Your task to perform on an android device: turn on location history Image 0: 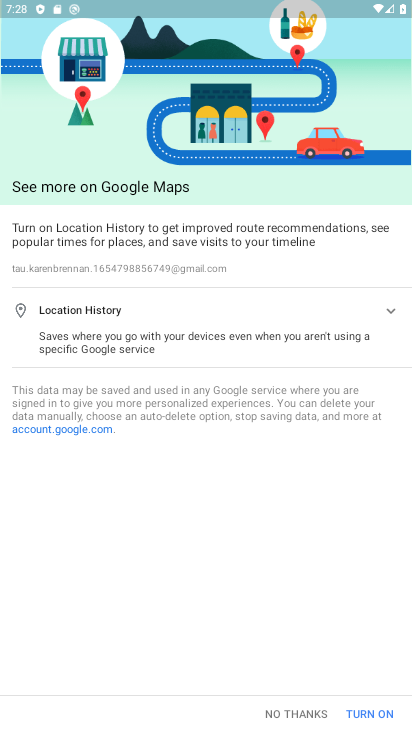
Step 0: press home button
Your task to perform on an android device: turn on location history Image 1: 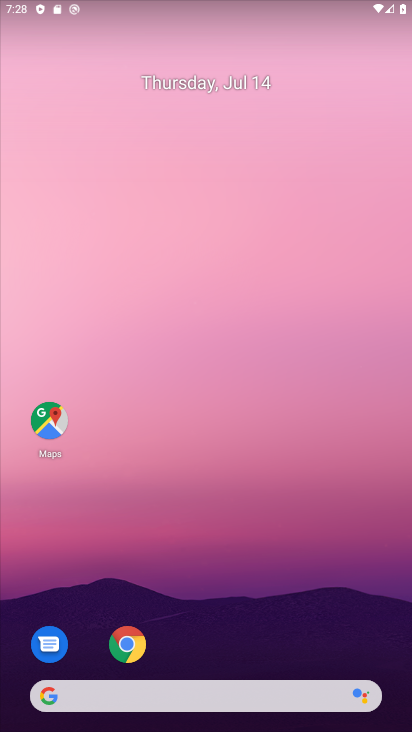
Step 1: click (44, 412)
Your task to perform on an android device: turn on location history Image 2: 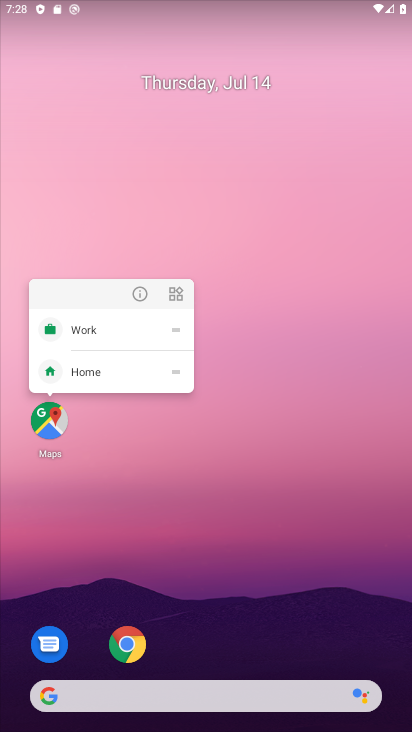
Step 2: click (44, 420)
Your task to perform on an android device: turn on location history Image 3: 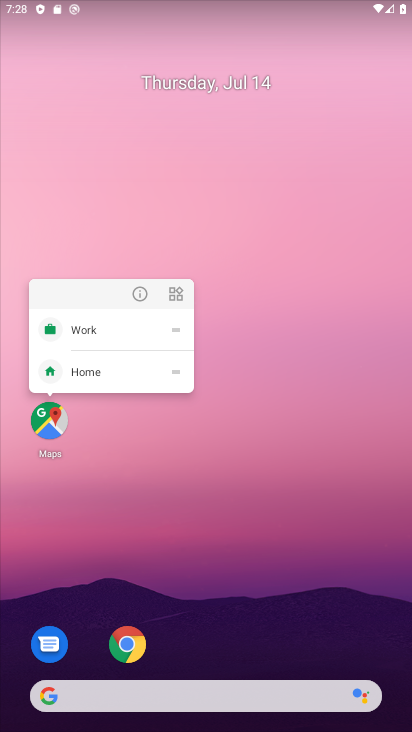
Step 3: click (44, 420)
Your task to perform on an android device: turn on location history Image 4: 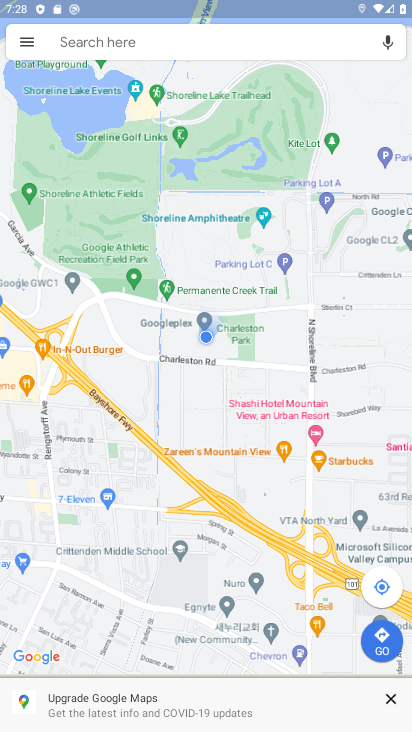
Step 4: click (22, 37)
Your task to perform on an android device: turn on location history Image 5: 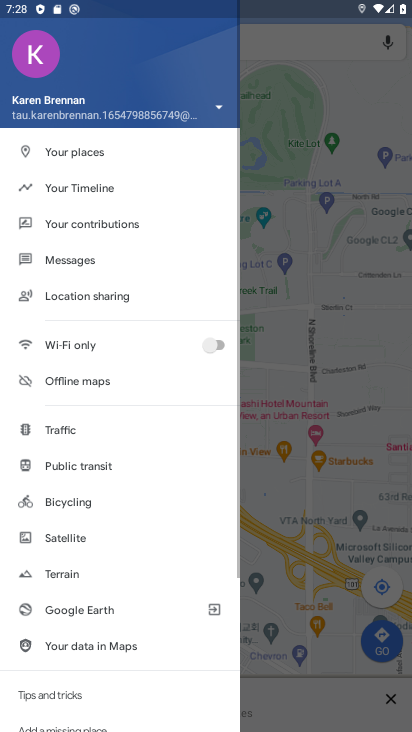
Step 5: click (109, 191)
Your task to perform on an android device: turn on location history Image 6: 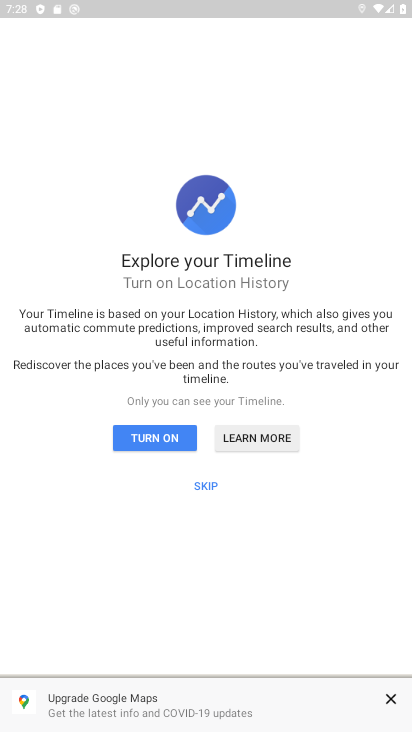
Step 6: click (208, 484)
Your task to perform on an android device: turn on location history Image 7: 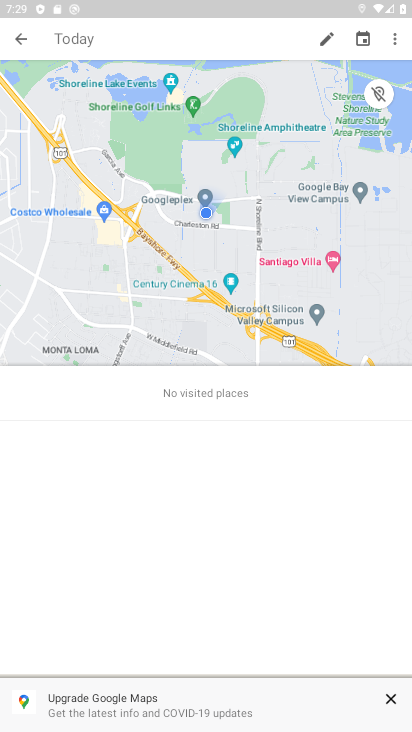
Step 7: click (399, 38)
Your task to perform on an android device: turn on location history Image 8: 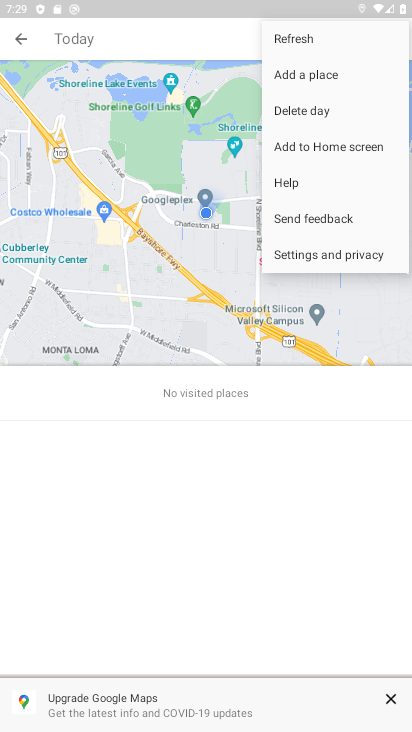
Step 8: click (316, 259)
Your task to perform on an android device: turn on location history Image 9: 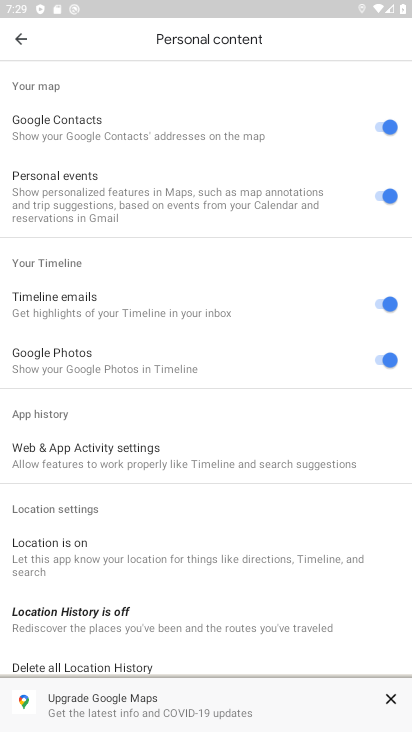
Step 9: drag from (237, 465) to (359, 220)
Your task to perform on an android device: turn on location history Image 10: 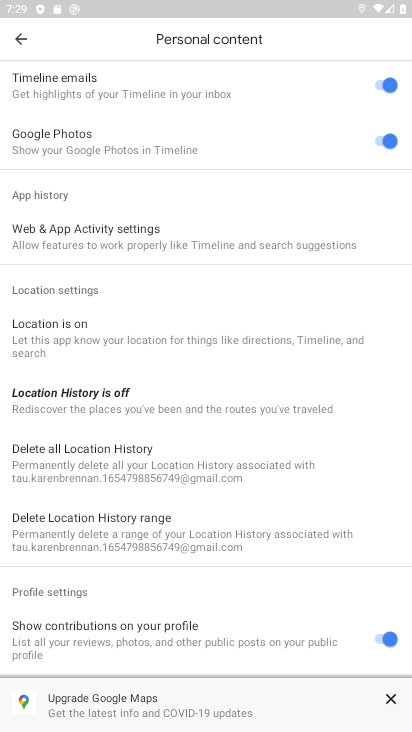
Step 10: click (94, 399)
Your task to perform on an android device: turn on location history Image 11: 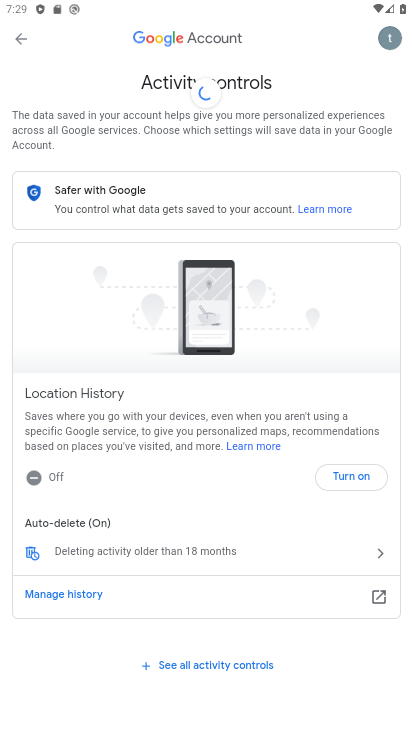
Step 11: click (358, 473)
Your task to perform on an android device: turn on location history Image 12: 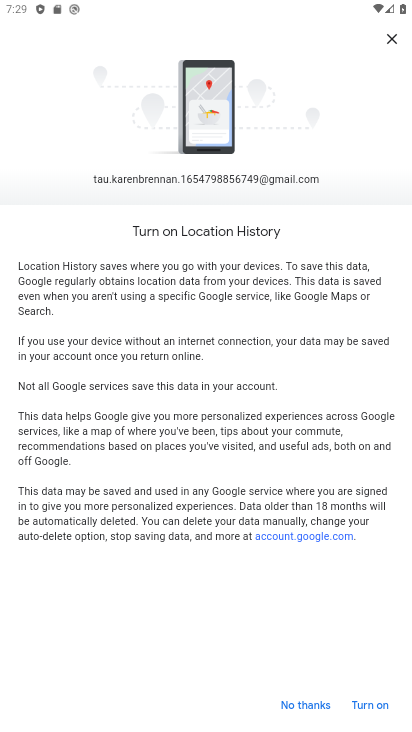
Step 12: click (382, 710)
Your task to perform on an android device: turn on location history Image 13: 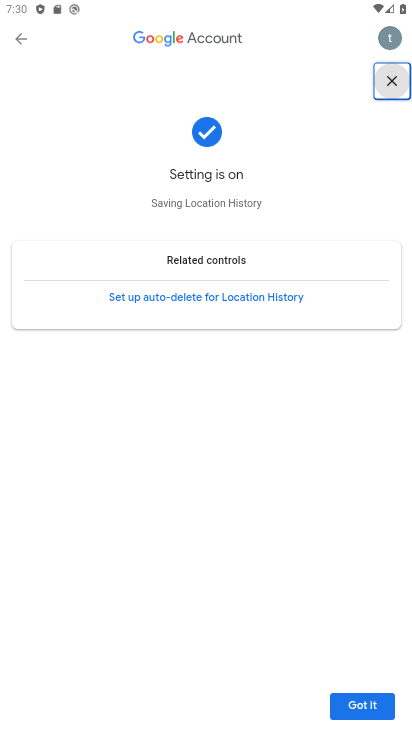
Step 13: click (359, 702)
Your task to perform on an android device: turn on location history Image 14: 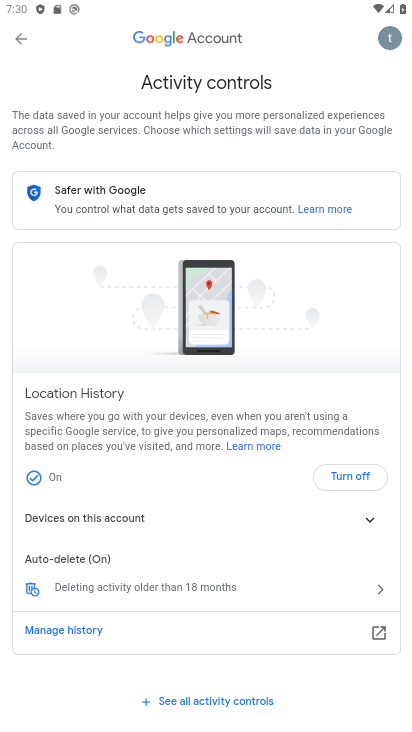
Step 14: task complete